Your task to perform on an android device: Go to CNN.com Image 0: 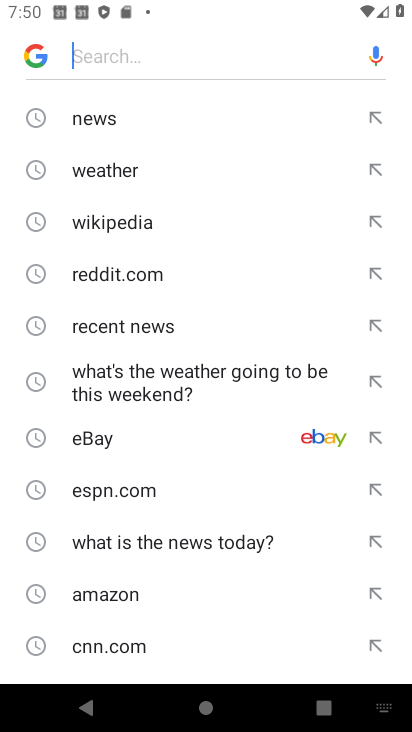
Step 0: press home button
Your task to perform on an android device: Go to CNN.com Image 1: 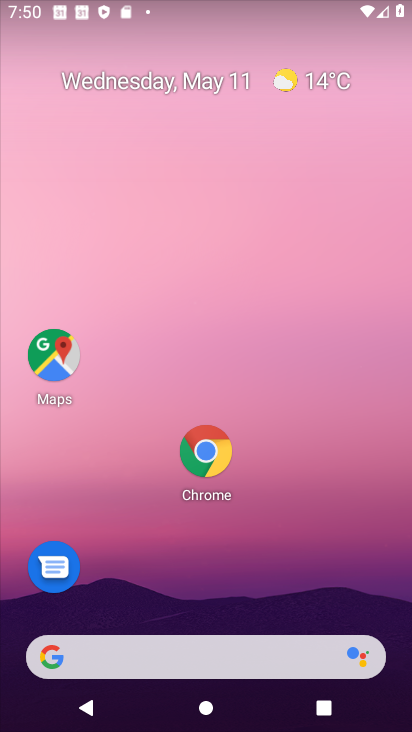
Step 1: drag from (174, 637) to (315, 158)
Your task to perform on an android device: Go to CNN.com Image 2: 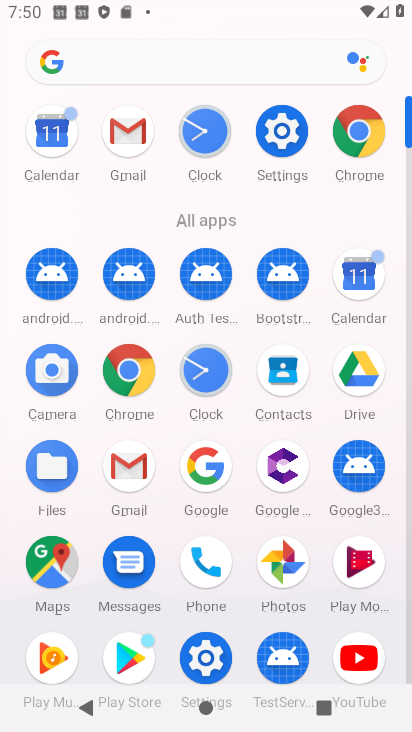
Step 2: click (363, 142)
Your task to perform on an android device: Go to CNN.com Image 3: 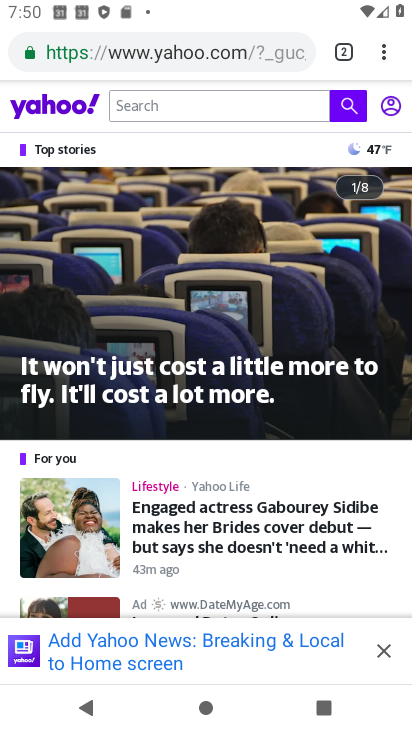
Step 3: drag from (382, 55) to (331, 103)
Your task to perform on an android device: Go to CNN.com Image 4: 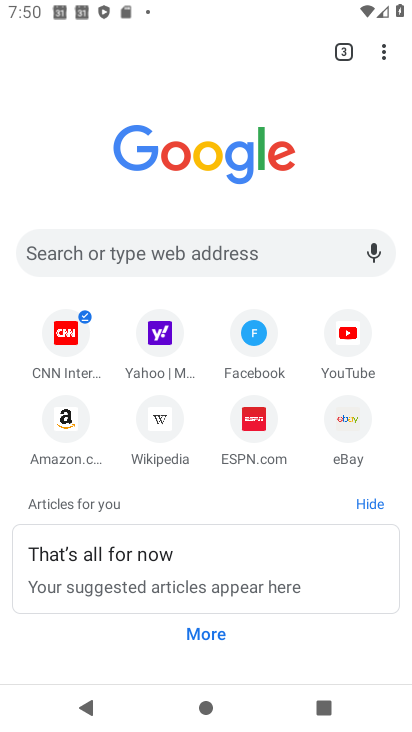
Step 4: click (200, 250)
Your task to perform on an android device: Go to CNN.com Image 5: 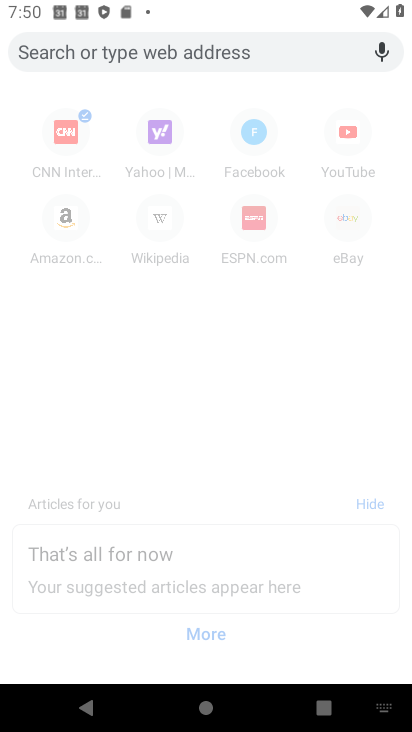
Step 5: type "cnn.com"
Your task to perform on an android device: Go to CNN.com Image 6: 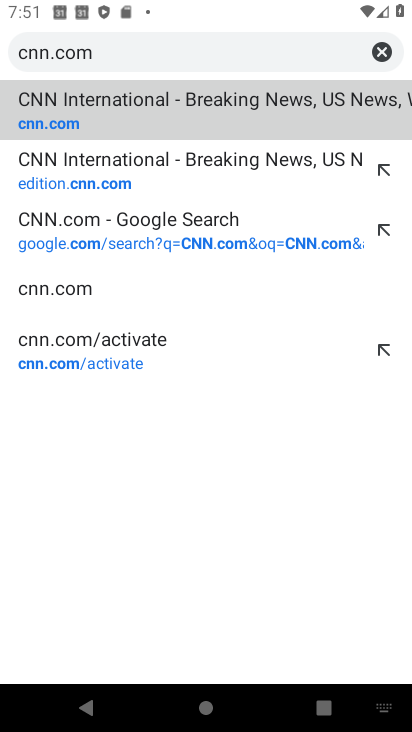
Step 6: click (211, 100)
Your task to perform on an android device: Go to CNN.com Image 7: 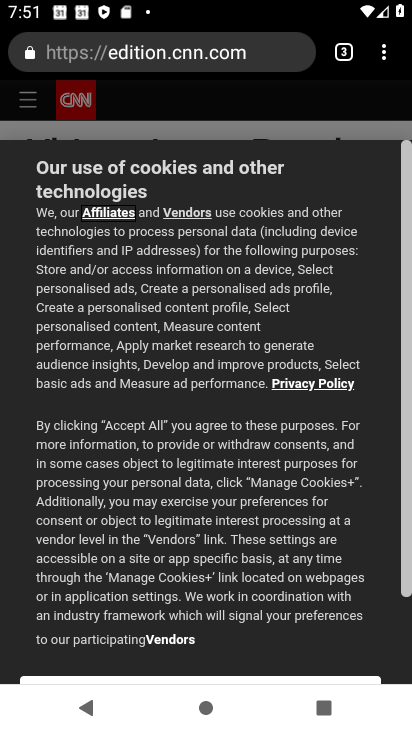
Step 7: task complete